Your task to perform on an android device: toggle location history Image 0: 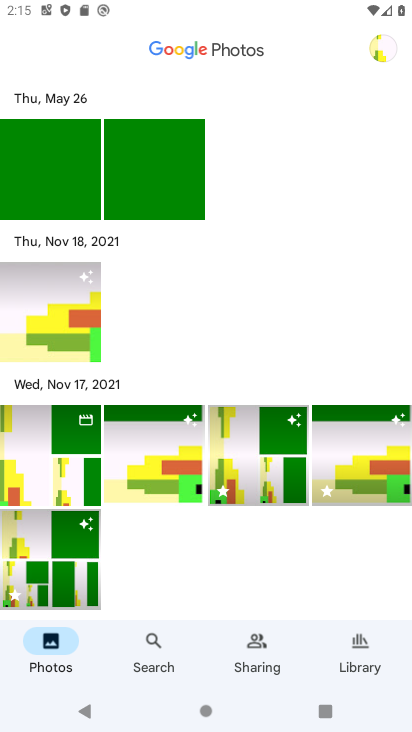
Step 0: press home button
Your task to perform on an android device: toggle location history Image 1: 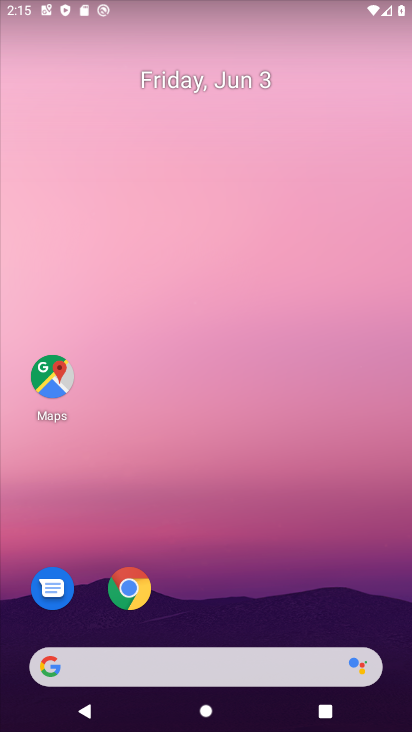
Step 1: drag from (190, 571) to (166, 3)
Your task to perform on an android device: toggle location history Image 2: 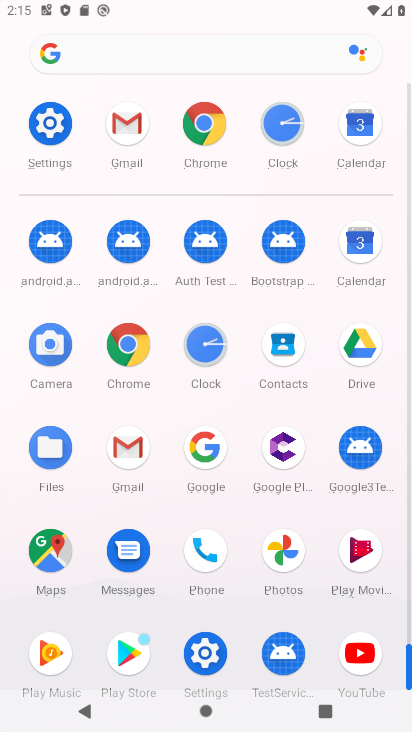
Step 2: click (215, 644)
Your task to perform on an android device: toggle location history Image 3: 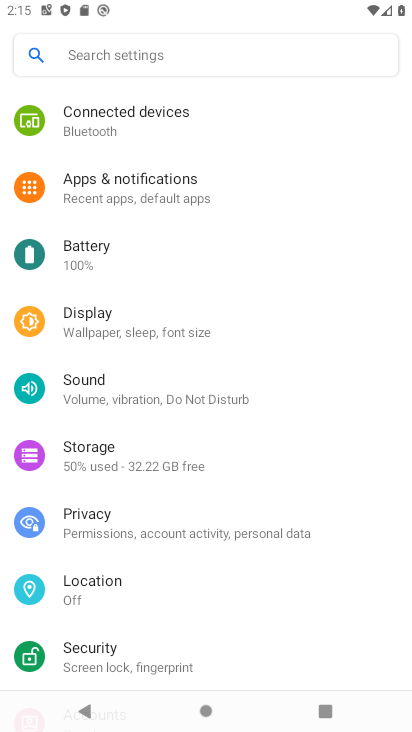
Step 3: click (99, 589)
Your task to perform on an android device: toggle location history Image 4: 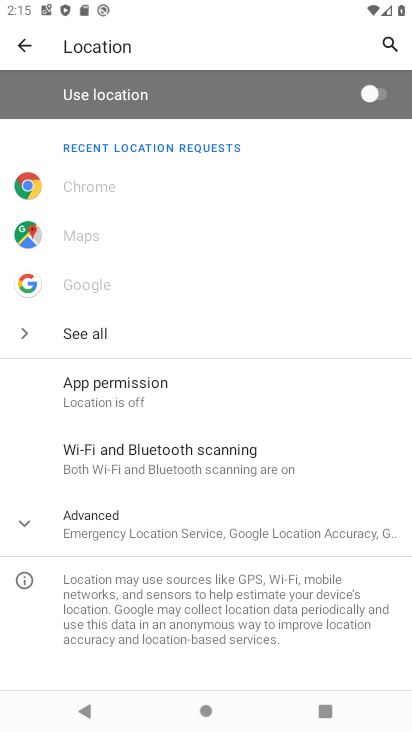
Step 4: drag from (98, 589) to (218, 186)
Your task to perform on an android device: toggle location history Image 5: 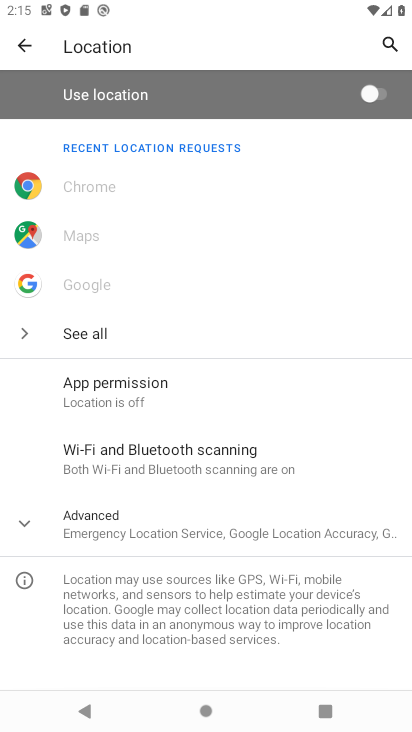
Step 5: click (117, 532)
Your task to perform on an android device: toggle location history Image 6: 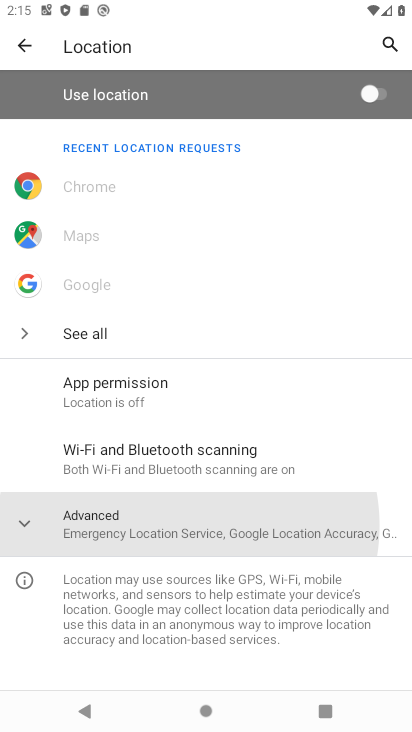
Step 6: drag from (135, 447) to (200, 78)
Your task to perform on an android device: toggle location history Image 7: 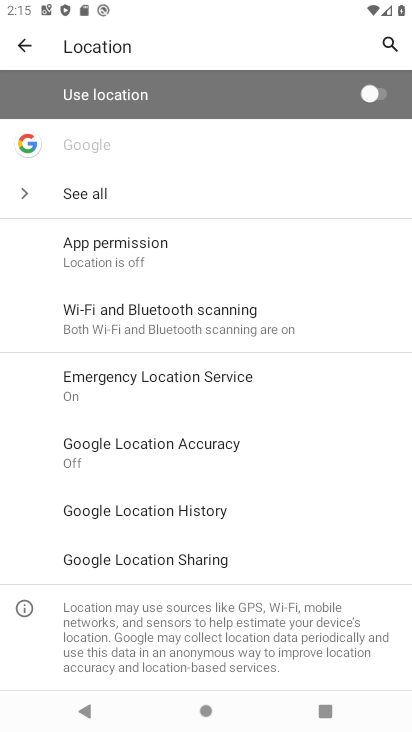
Step 7: click (197, 519)
Your task to perform on an android device: toggle location history Image 8: 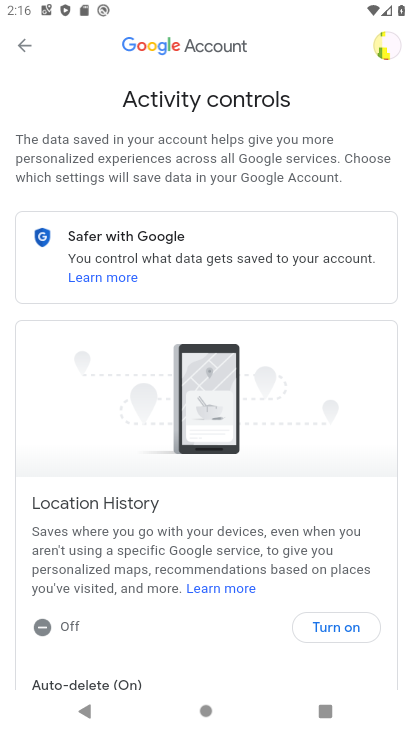
Step 8: drag from (216, 640) to (208, 219)
Your task to perform on an android device: toggle location history Image 9: 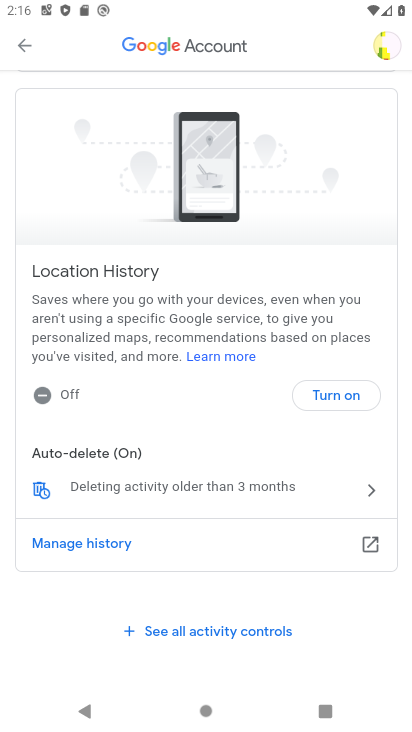
Step 9: click (337, 397)
Your task to perform on an android device: toggle location history Image 10: 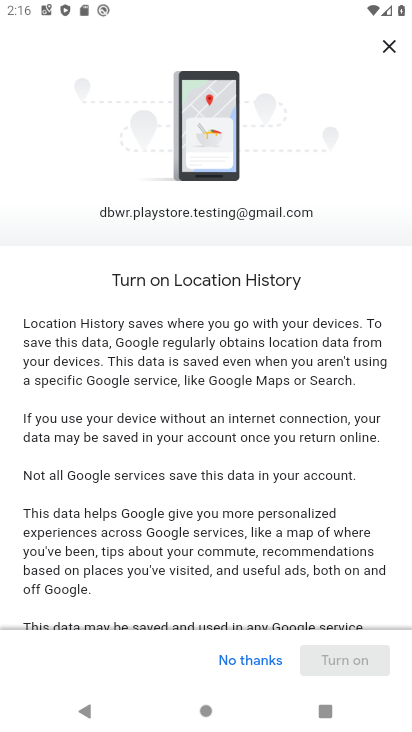
Step 10: task complete